Your task to perform on an android device: refresh tabs in the chrome app Image 0: 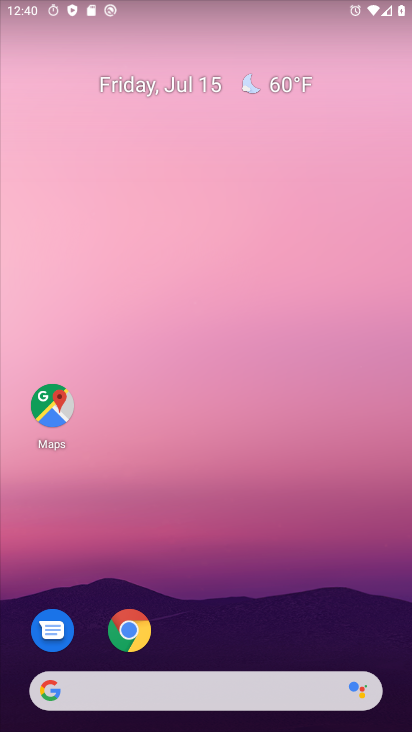
Step 0: click (135, 633)
Your task to perform on an android device: refresh tabs in the chrome app Image 1: 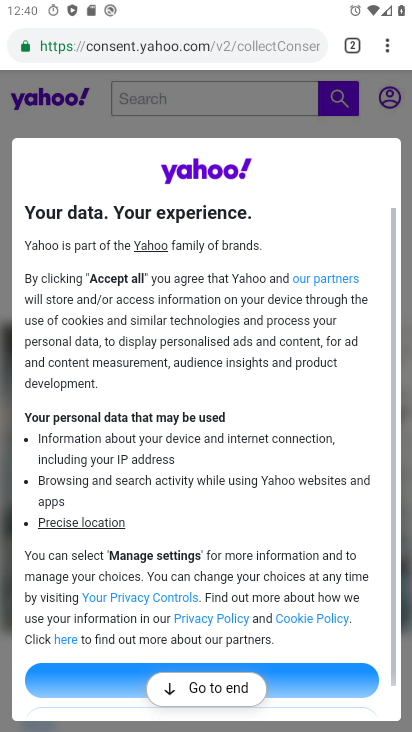
Step 1: click (387, 38)
Your task to perform on an android device: refresh tabs in the chrome app Image 2: 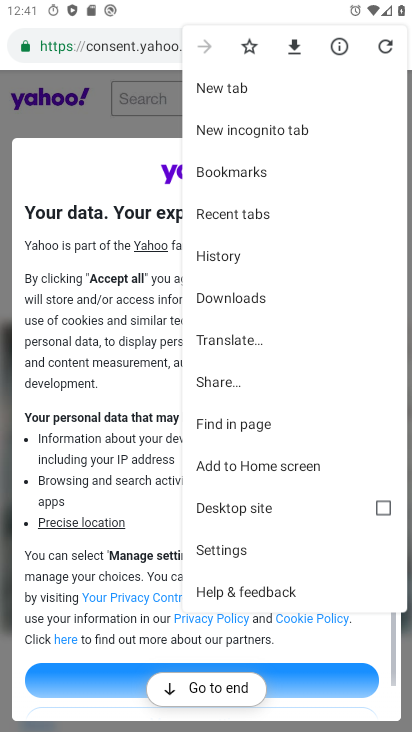
Step 2: click (377, 43)
Your task to perform on an android device: refresh tabs in the chrome app Image 3: 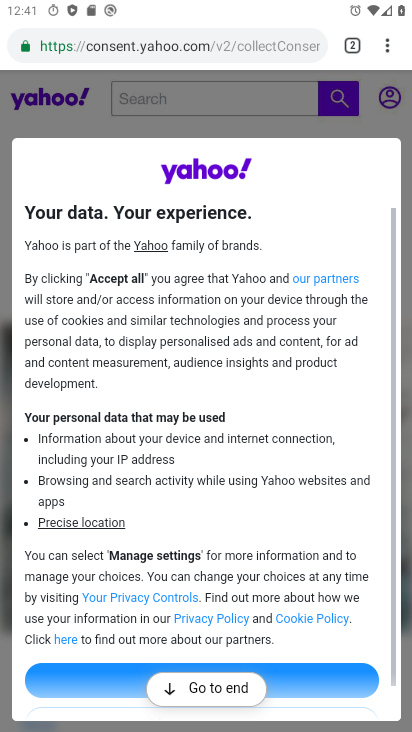
Step 3: task complete